Your task to perform on an android device: Open calendar and show me the first week of next month Image 0: 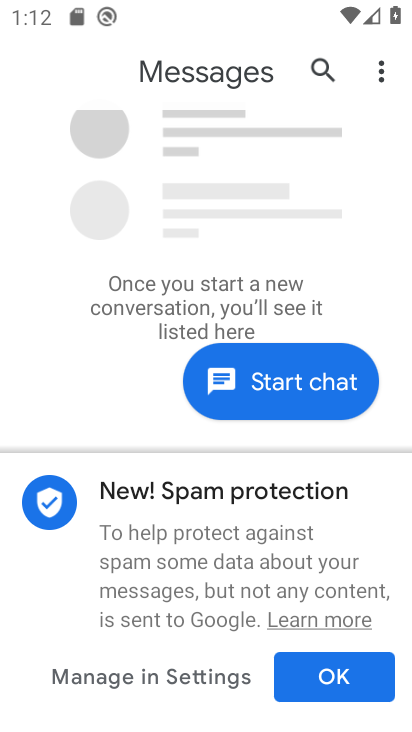
Step 0: drag from (175, 623) to (184, 293)
Your task to perform on an android device: Open calendar and show me the first week of next month Image 1: 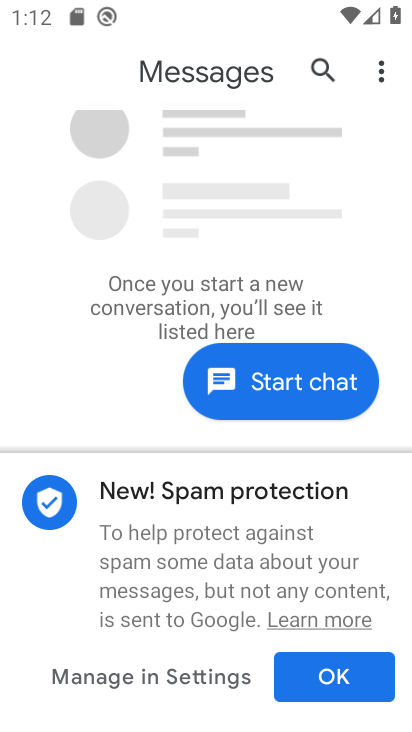
Step 1: press home button
Your task to perform on an android device: Open calendar and show me the first week of next month Image 2: 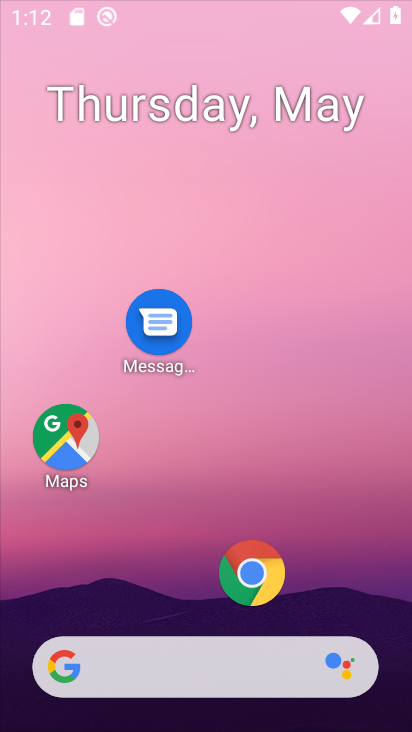
Step 2: drag from (120, 690) to (186, 104)
Your task to perform on an android device: Open calendar and show me the first week of next month Image 3: 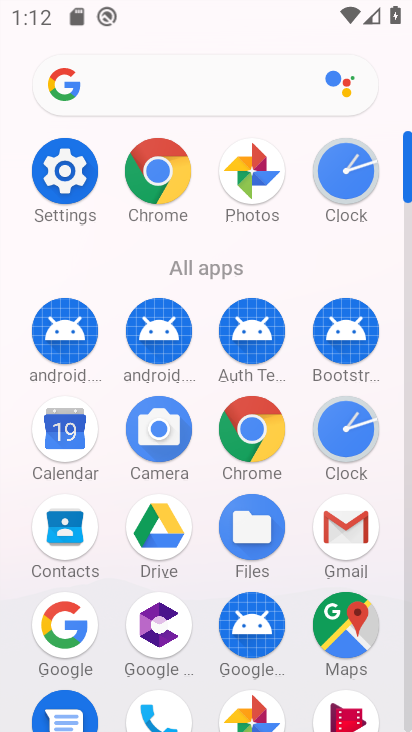
Step 3: click (64, 451)
Your task to perform on an android device: Open calendar and show me the first week of next month Image 4: 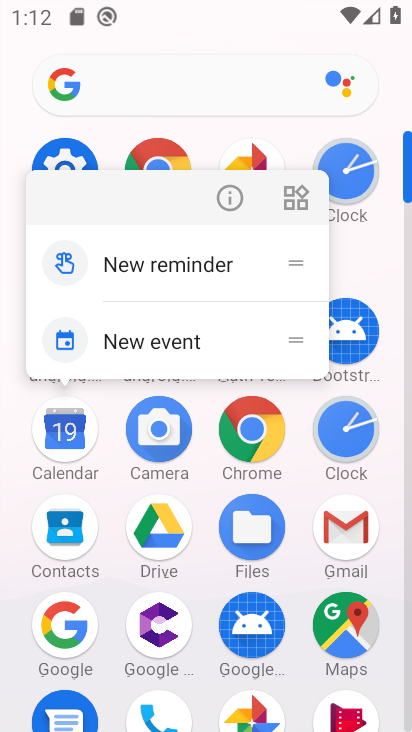
Step 4: click (236, 198)
Your task to perform on an android device: Open calendar and show me the first week of next month Image 5: 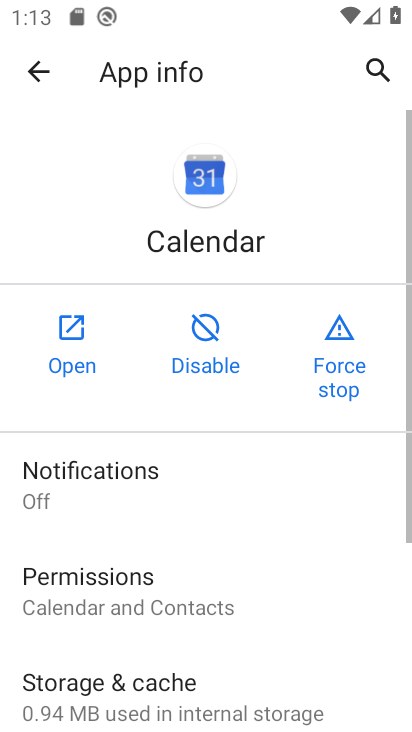
Step 5: click (65, 341)
Your task to perform on an android device: Open calendar and show me the first week of next month Image 6: 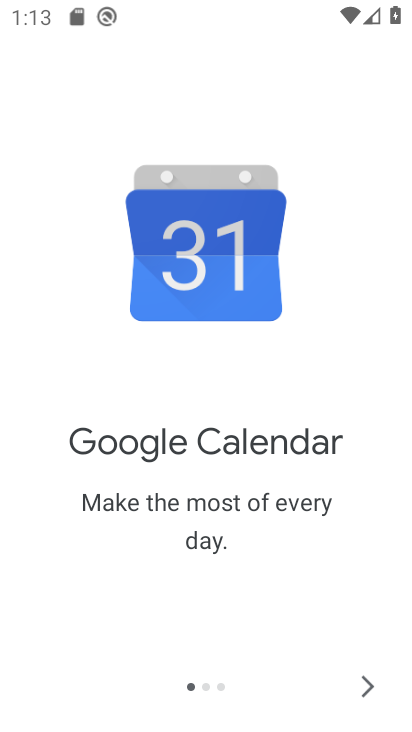
Step 6: click (356, 697)
Your task to perform on an android device: Open calendar and show me the first week of next month Image 7: 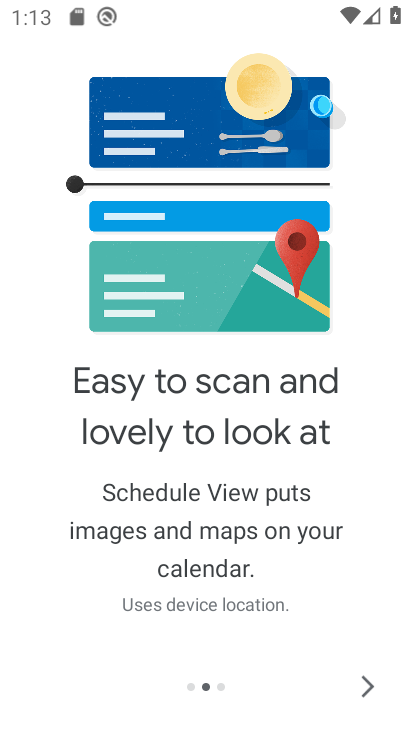
Step 7: click (359, 693)
Your task to perform on an android device: Open calendar and show me the first week of next month Image 8: 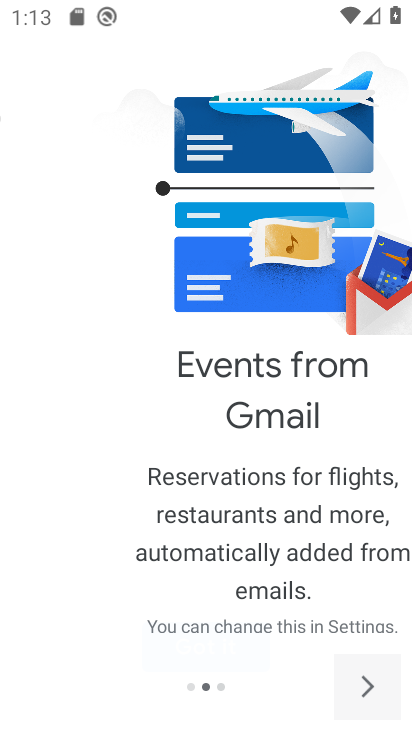
Step 8: click (359, 693)
Your task to perform on an android device: Open calendar and show me the first week of next month Image 9: 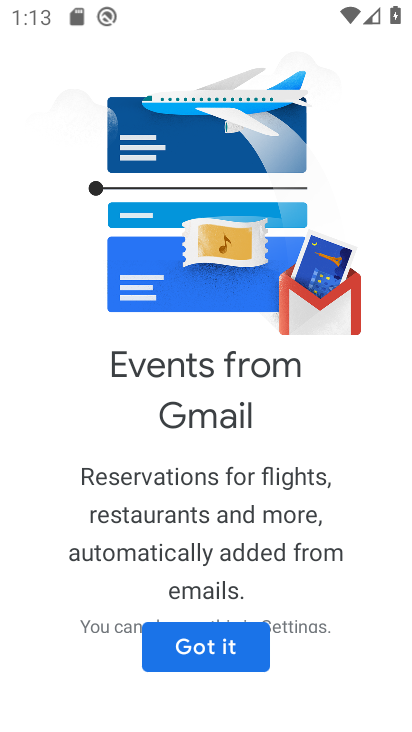
Step 9: click (194, 655)
Your task to perform on an android device: Open calendar and show me the first week of next month Image 10: 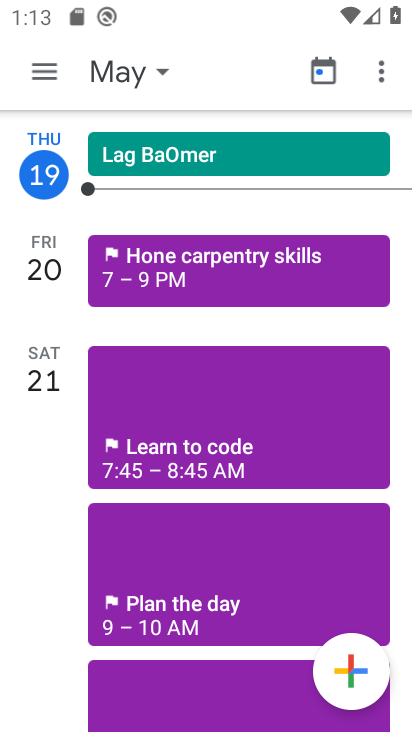
Step 10: drag from (275, 563) to (340, 262)
Your task to perform on an android device: Open calendar and show me the first week of next month Image 11: 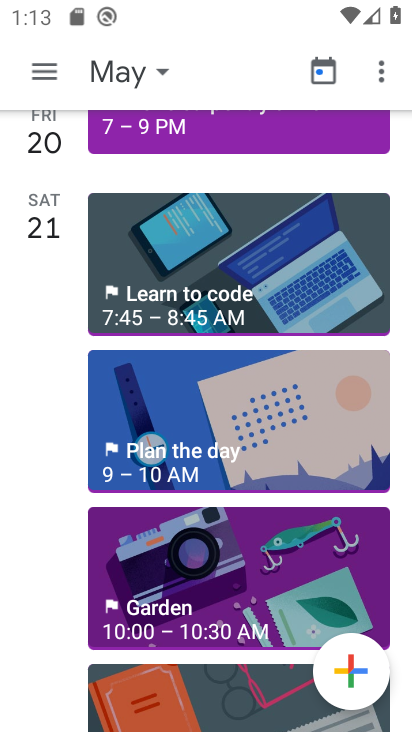
Step 11: drag from (214, 630) to (247, 436)
Your task to perform on an android device: Open calendar and show me the first week of next month Image 12: 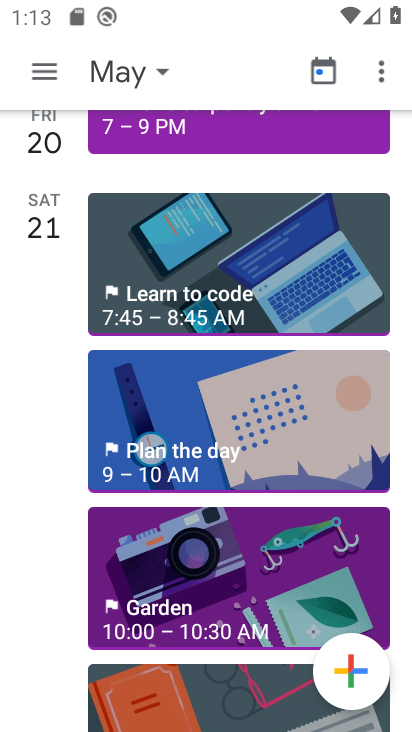
Step 12: click (147, 35)
Your task to perform on an android device: Open calendar and show me the first week of next month Image 13: 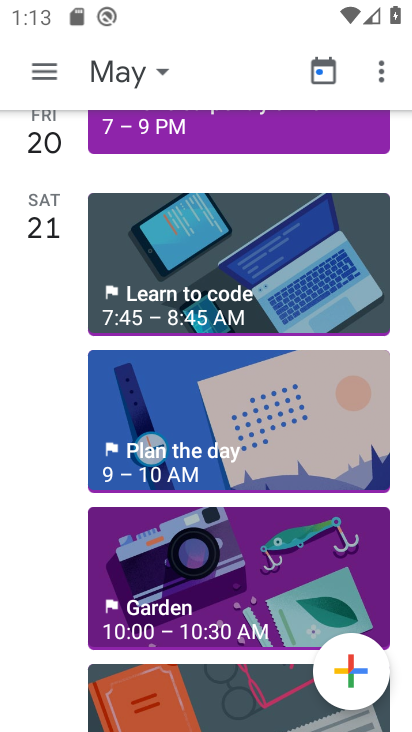
Step 13: click (137, 54)
Your task to perform on an android device: Open calendar and show me the first week of next month Image 14: 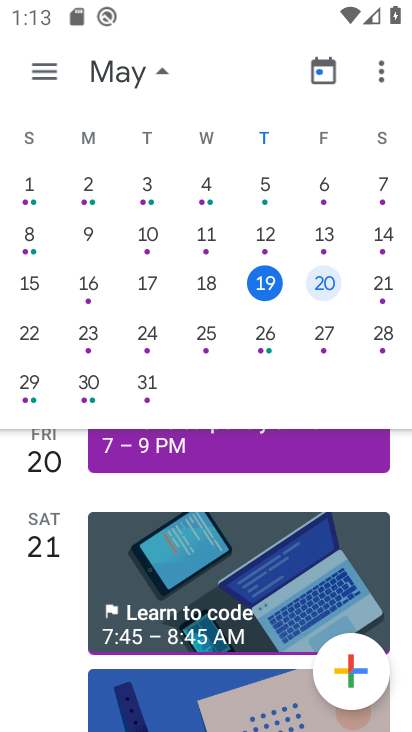
Step 14: drag from (319, 246) to (8, 252)
Your task to perform on an android device: Open calendar and show me the first week of next month Image 15: 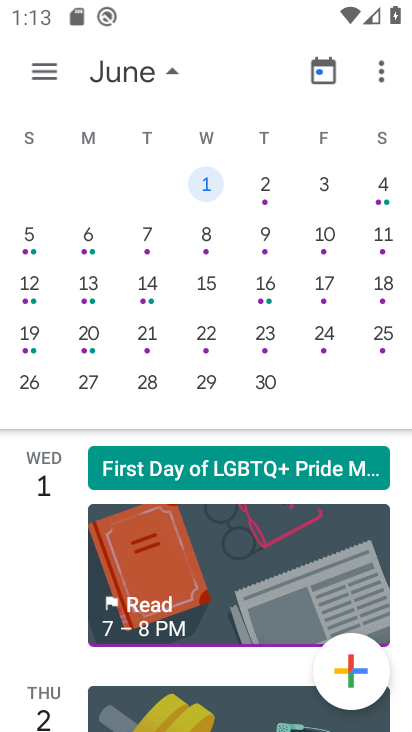
Step 15: click (381, 186)
Your task to perform on an android device: Open calendar and show me the first week of next month Image 16: 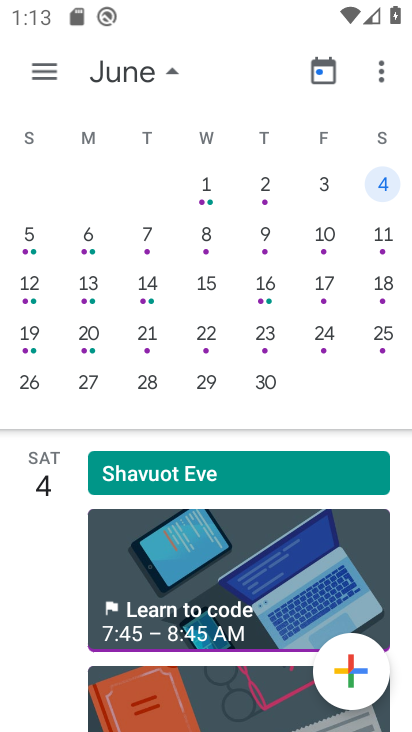
Step 16: task complete